Your task to perform on an android device: add a contact Image 0: 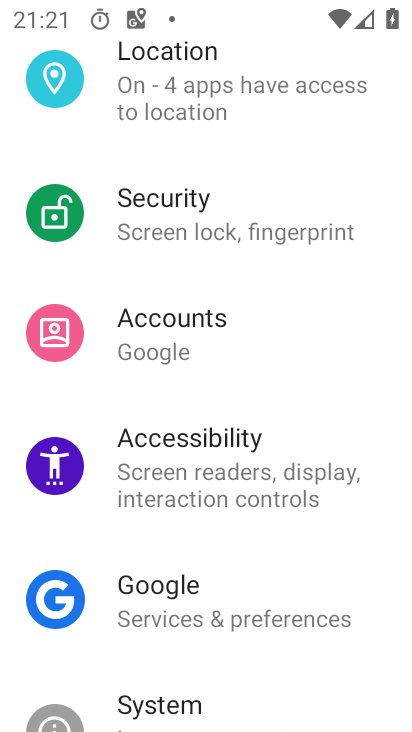
Step 0: press home button
Your task to perform on an android device: add a contact Image 1: 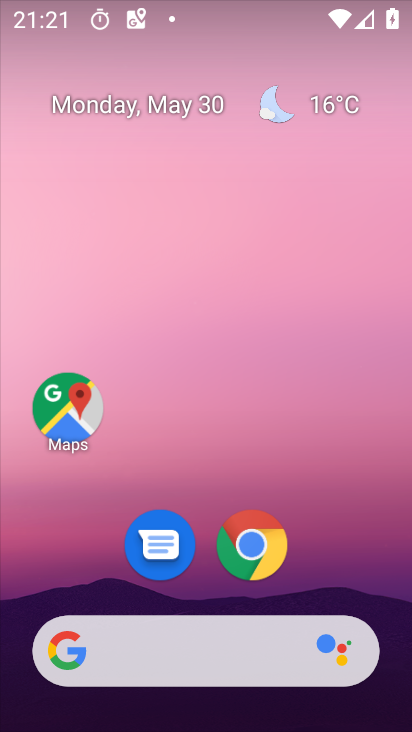
Step 1: drag from (321, 564) to (259, 137)
Your task to perform on an android device: add a contact Image 2: 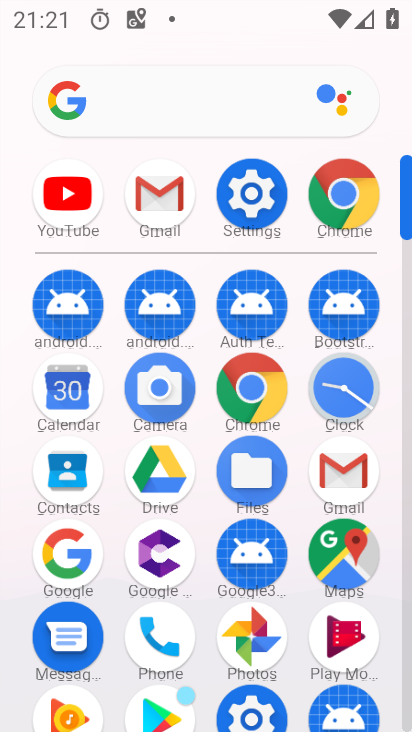
Step 2: click (62, 482)
Your task to perform on an android device: add a contact Image 3: 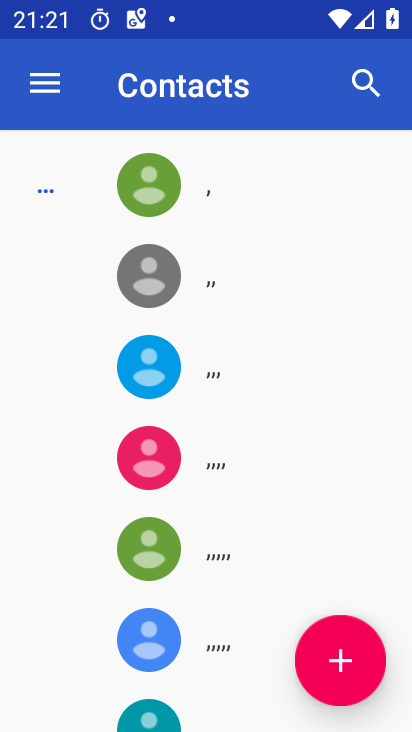
Step 3: click (344, 662)
Your task to perform on an android device: add a contact Image 4: 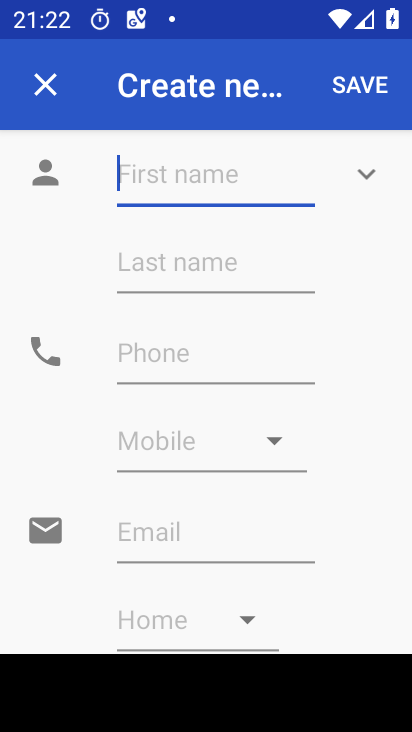
Step 4: type "gfhch"
Your task to perform on an android device: add a contact Image 5: 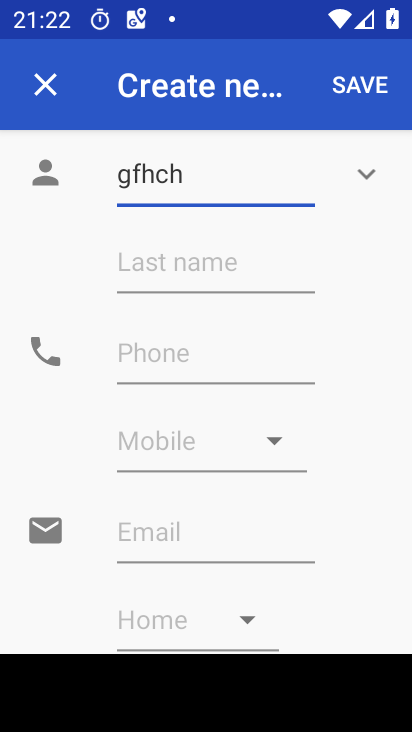
Step 5: click (172, 351)
Your task to perform on an android device: add a contact Image 6: 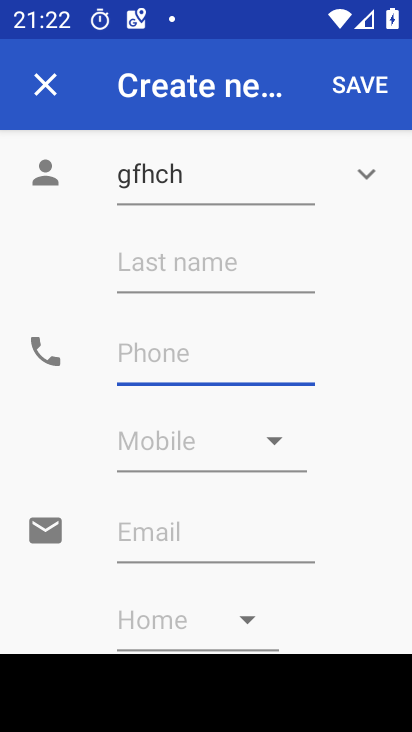
Step 6: type "56758697868"
Your task to perform on an android device: add a contact Image 7: 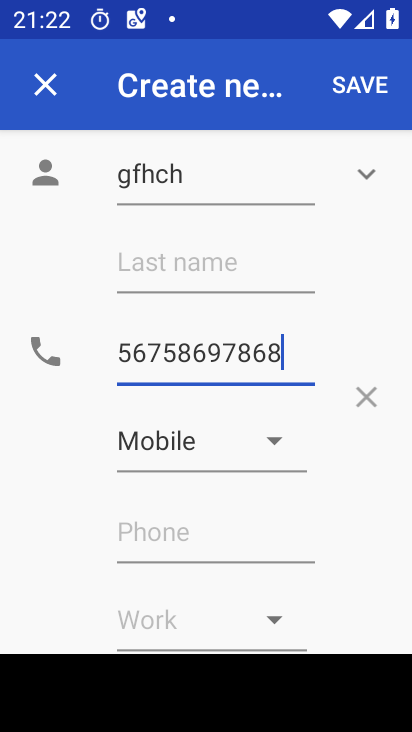
Step 7: click (366, 79)
Your task to perform on an android device: add a contact Image 8: 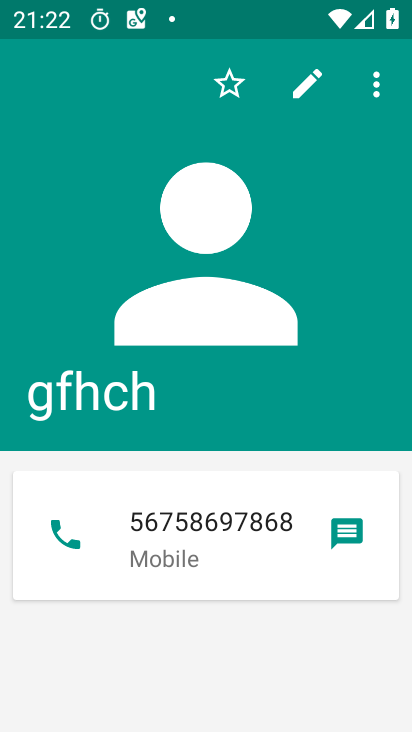
Step 8: task complete